Your task to perform on an android device: Open Chrome and go to settings Image 0: 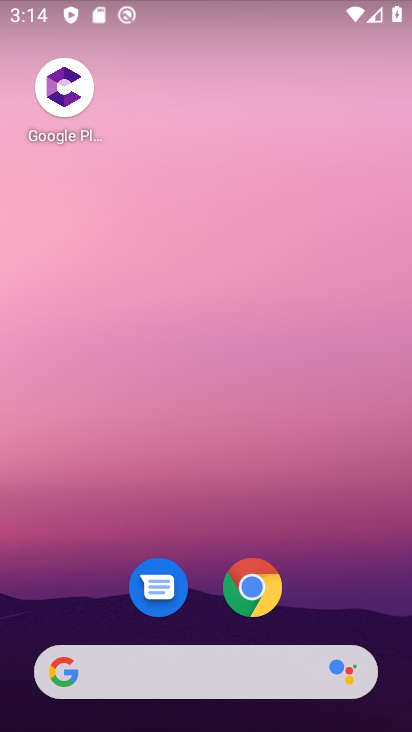
Step 0: click (259, 592)
Your task to perform on an android device: Open Chrome and go to settings Image 1: 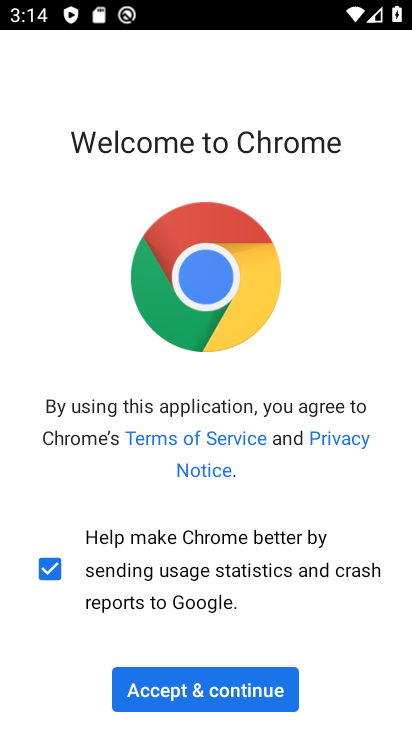
Step 1: click (147, 680)
Your task to perform on an android device: Open Chrome and go to settings Image 2: 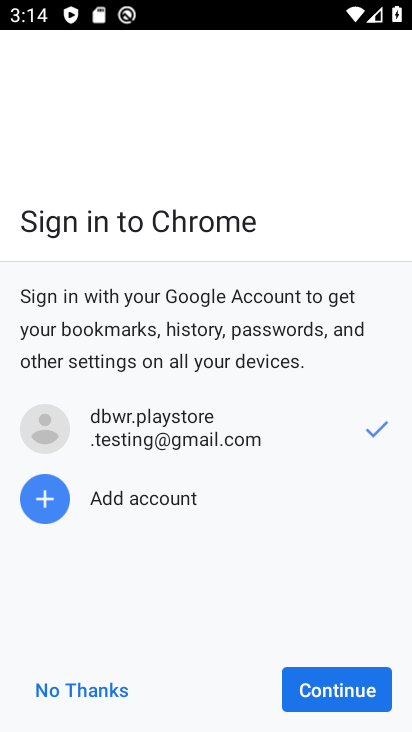
Step 2: click (333, 680)
Your task to perform on an android device: Open Chrome and go to settings Image 3: 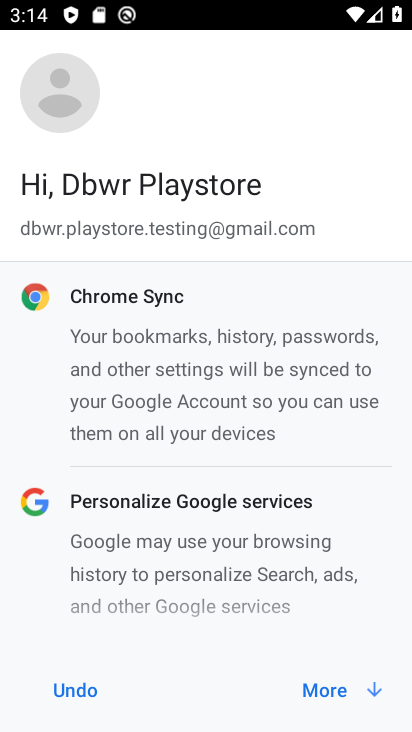
Step 3: click (334, 697)
Your task to perform on an android device: Open Chrome and go to settings Image 4: 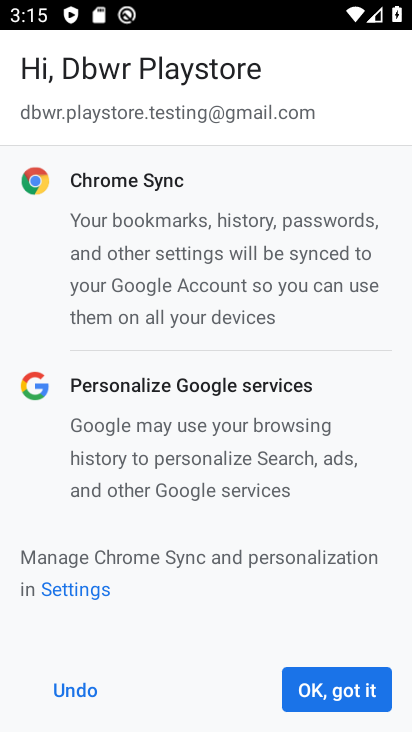
Step 4: click (328, 692)
Your task to perform on an android device: Open Chrome and go to settings Image 5: 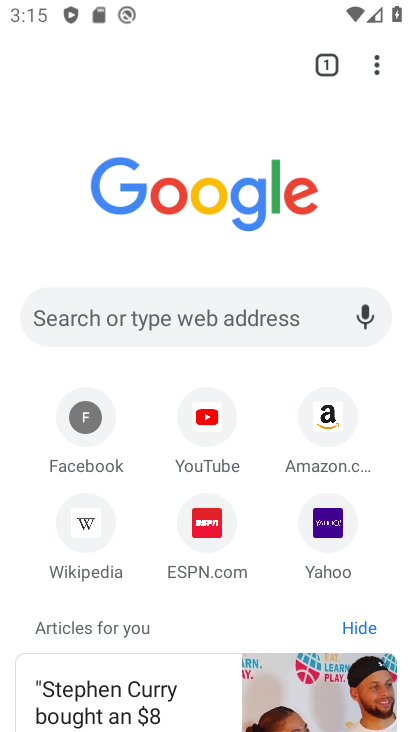
Step 5: click (378, 70)
Your task to perform on an android device: Open Chrome and go to settings Image 6: 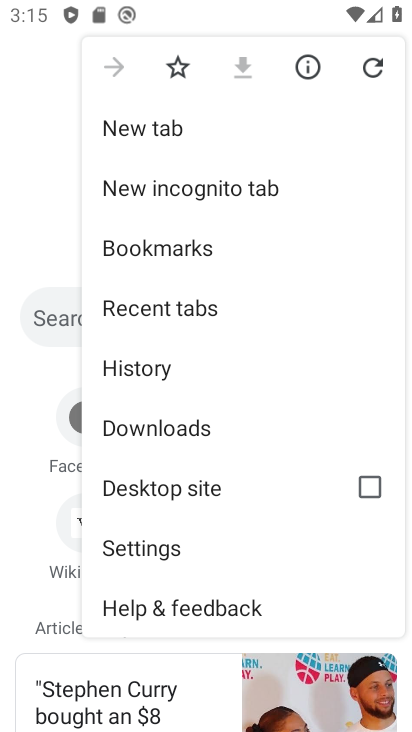
Step 6: click (139, 551)
Your task to perform on an android device: Open Chrome and go to settings Image 7: 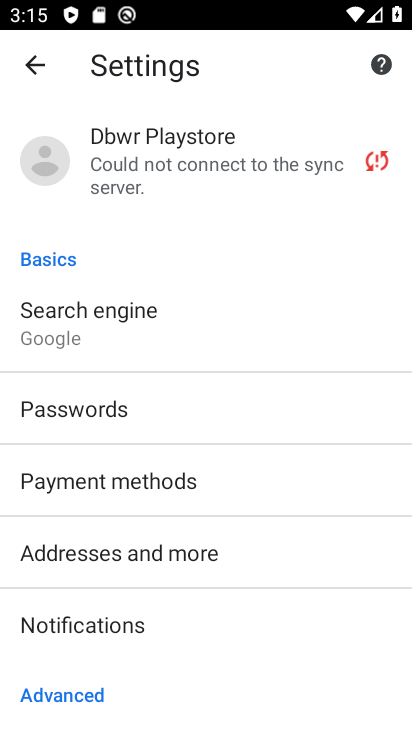
Step 7: task complete